Your task to perform on an android device: Open CNN.com Image 0: 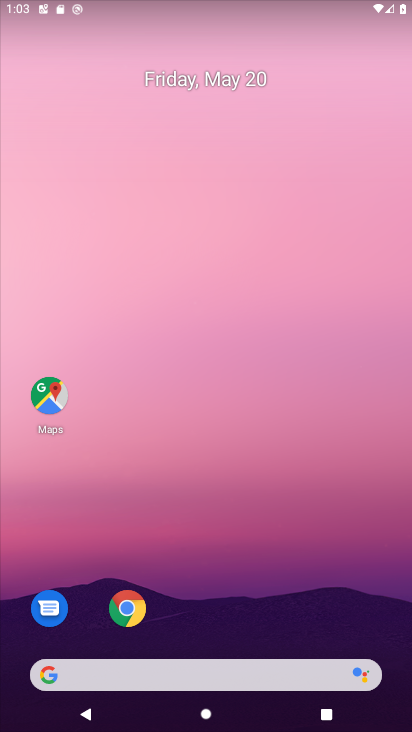
Step 0: drag from (244, 636) to (285, 100)
Your task to perform on an android device: Open CNN.com Image 1: 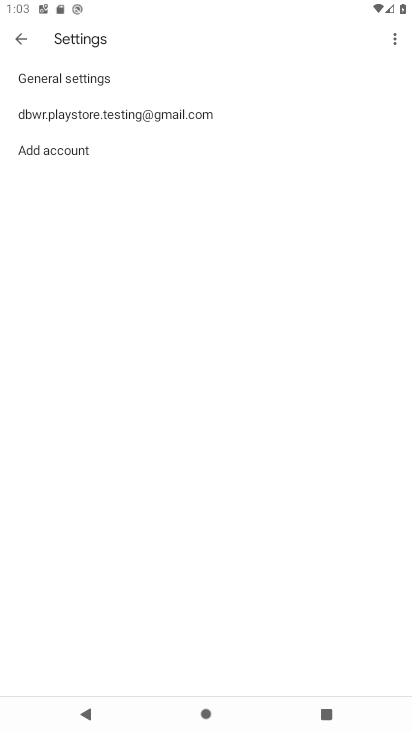
Step 1: press home button
Your task to perform on an android device: Open CNN.com Image 2: 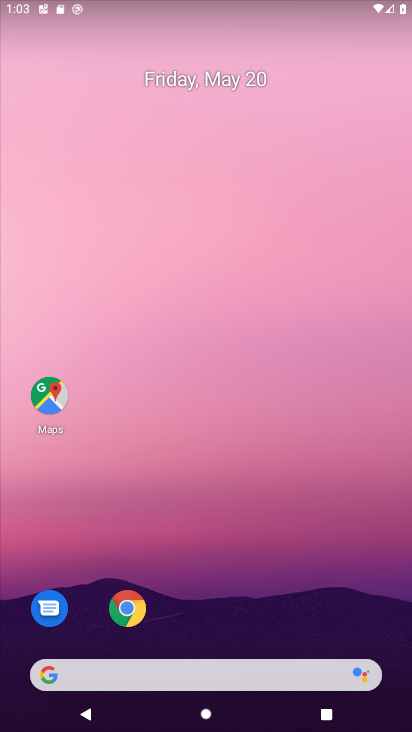
Step 2: drag from (208, 611) to (255, 170)
Your task to perform on an android device: Open CNN.com Image 3: 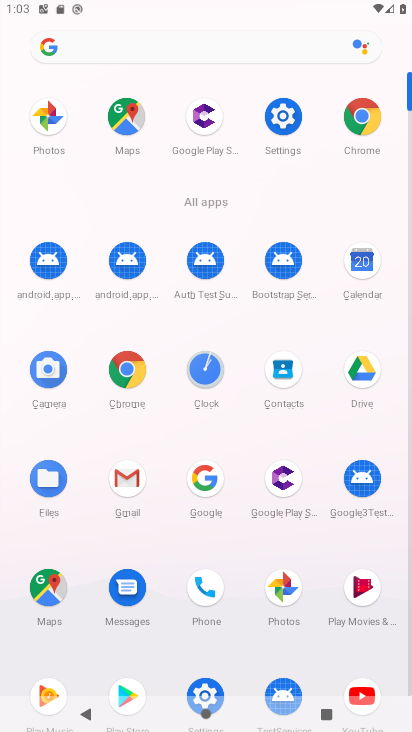
Step 3: click (198, 477)
Your task to perform on an android device: Open CNN.com Image 4: 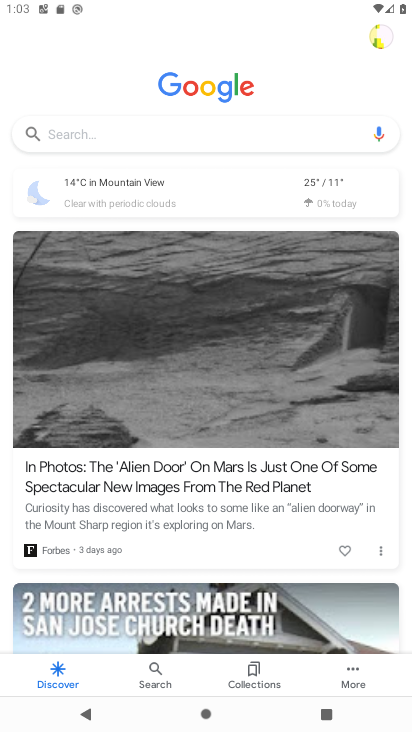
Step 4: drag from (214, 136) to (155, 136)
Your task to perform on an android device: Open CNN.com Image 5: 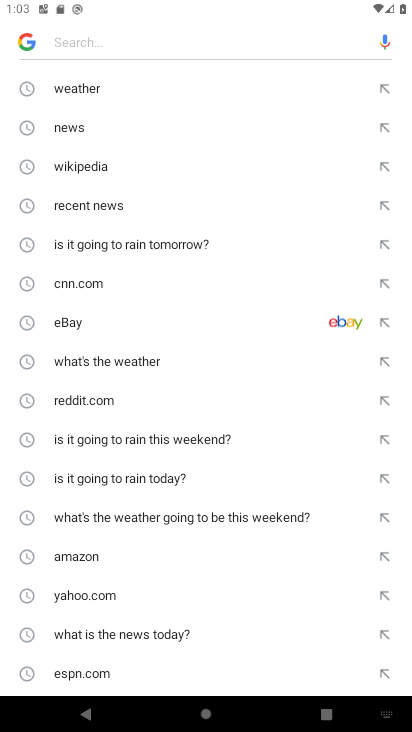
Step 5: click (124, 281)
Your task to perform on an android device: Open CNN.com Image 6: 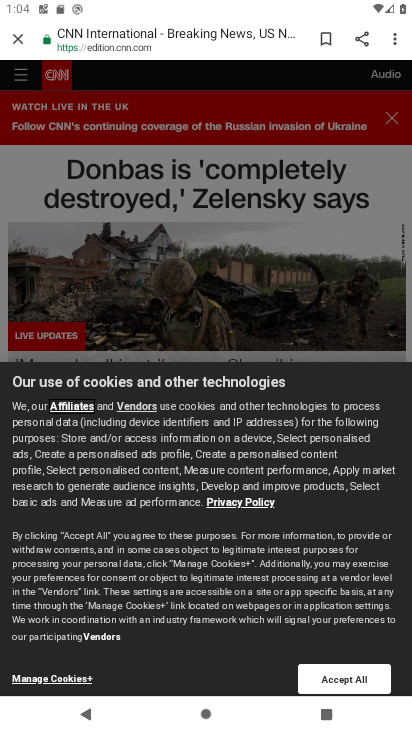
Step 6: task complete